Your task to perform on an android device: change keyboard looks Image 0: 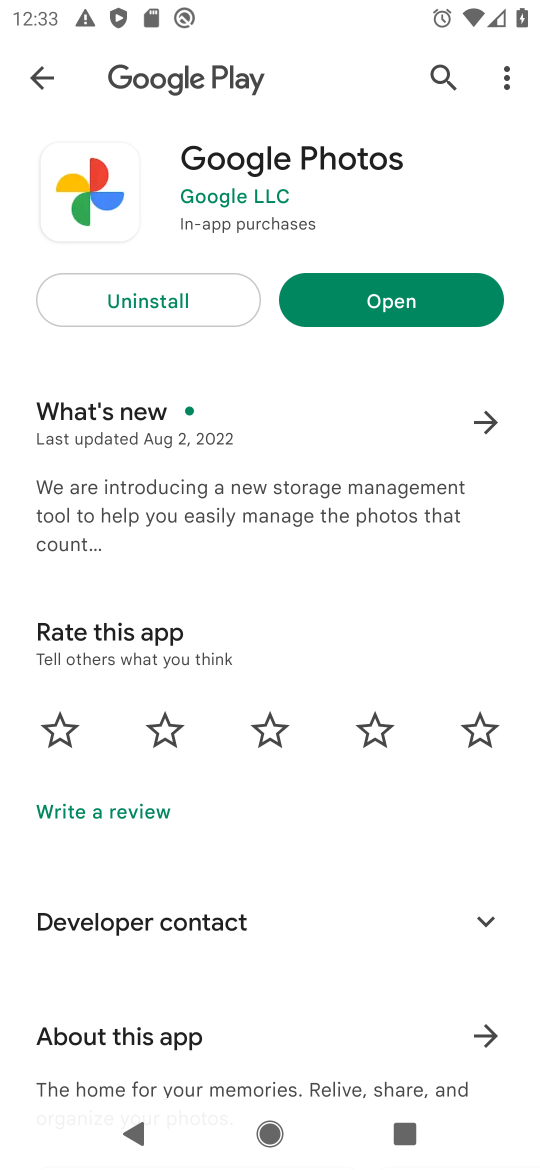
Step 0: press home button
Your task to perform on an android device: change keyboard looks Image 1: 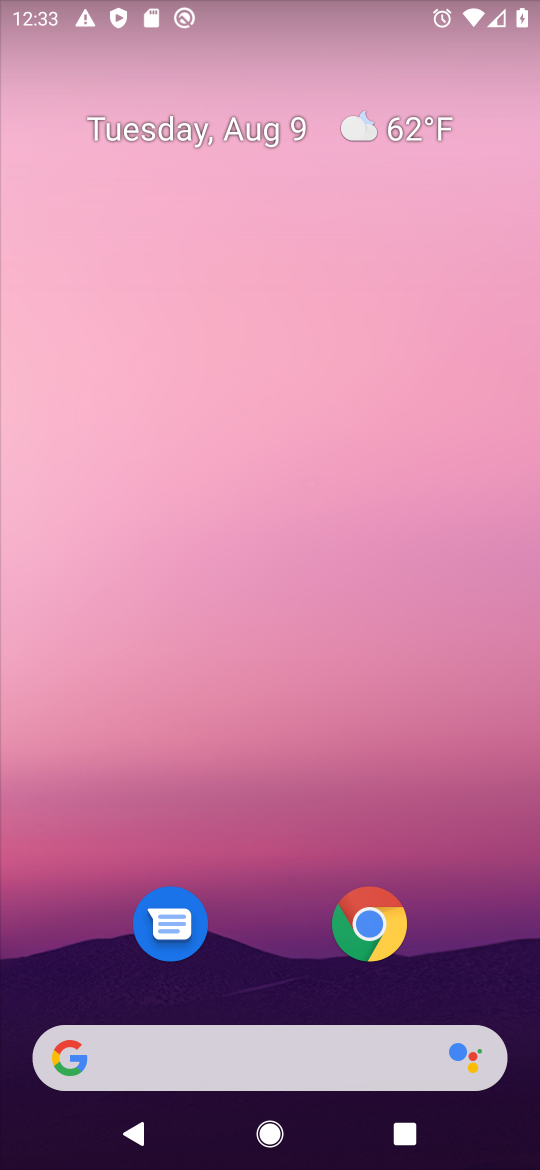
Step 1: drag from (303, 1003) to (245, 1)
Your task to perform on an android device: change keyboard looks Image 2: 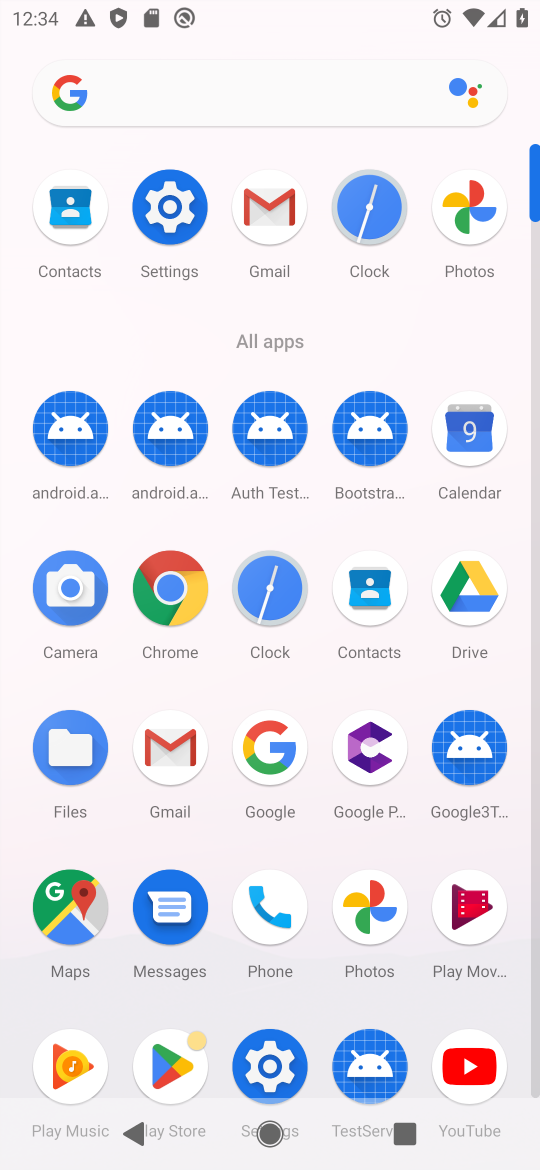
Step 2: click (163, 201)
Your task to perform on an android device: change keyboard looks Image 3: 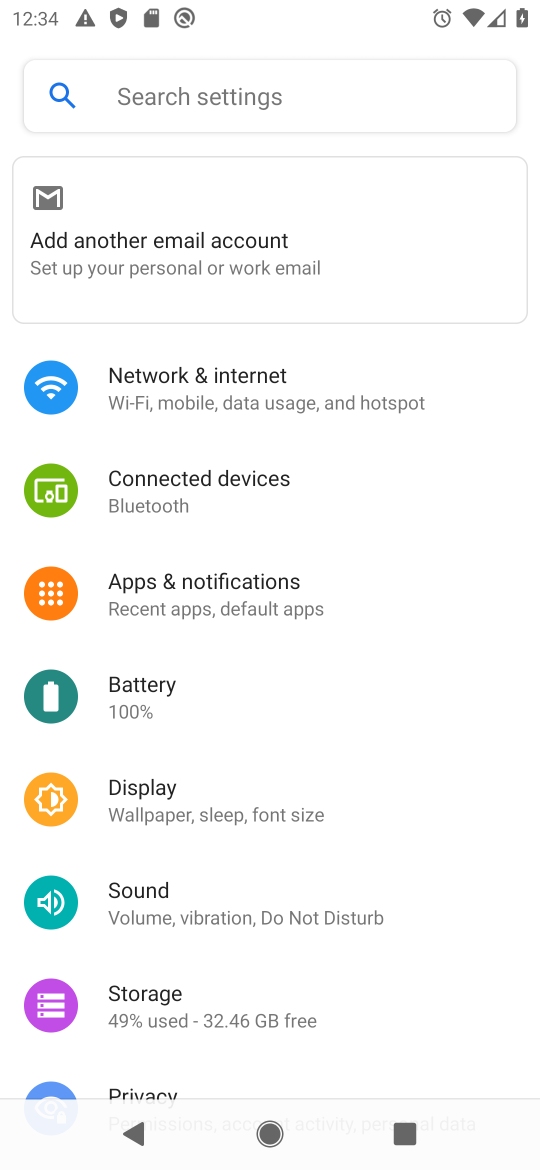
Step 3: drag from (362, 1032) to (207, 108)
Your task to perform on an android device: change keyboard looks Image 4: 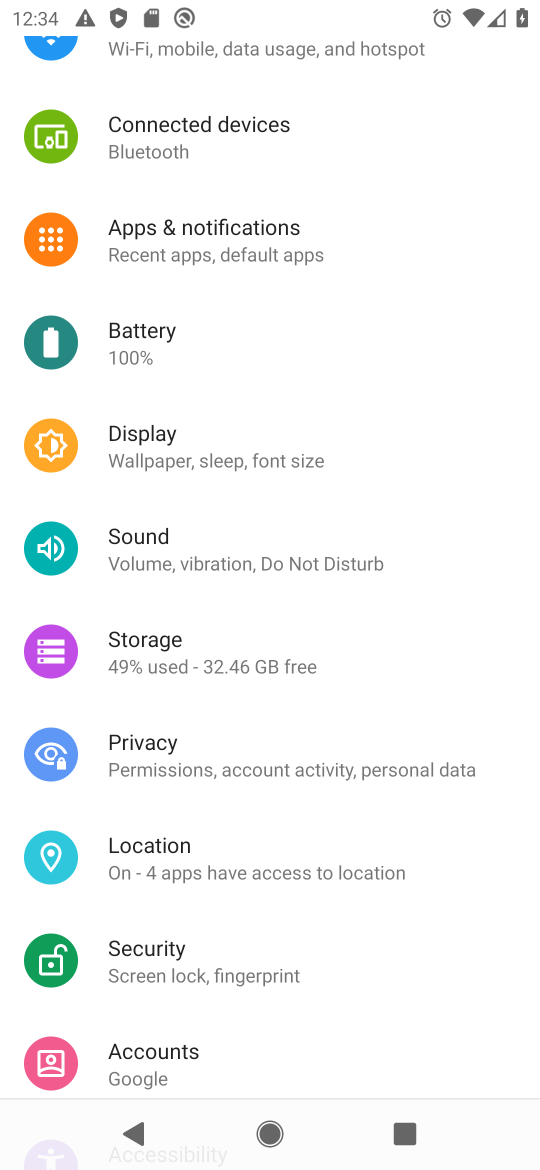
Step 4: drag from (294, 1042) to (189, 550)
Your task to perform on an android device: change keyboard looks Image 5: 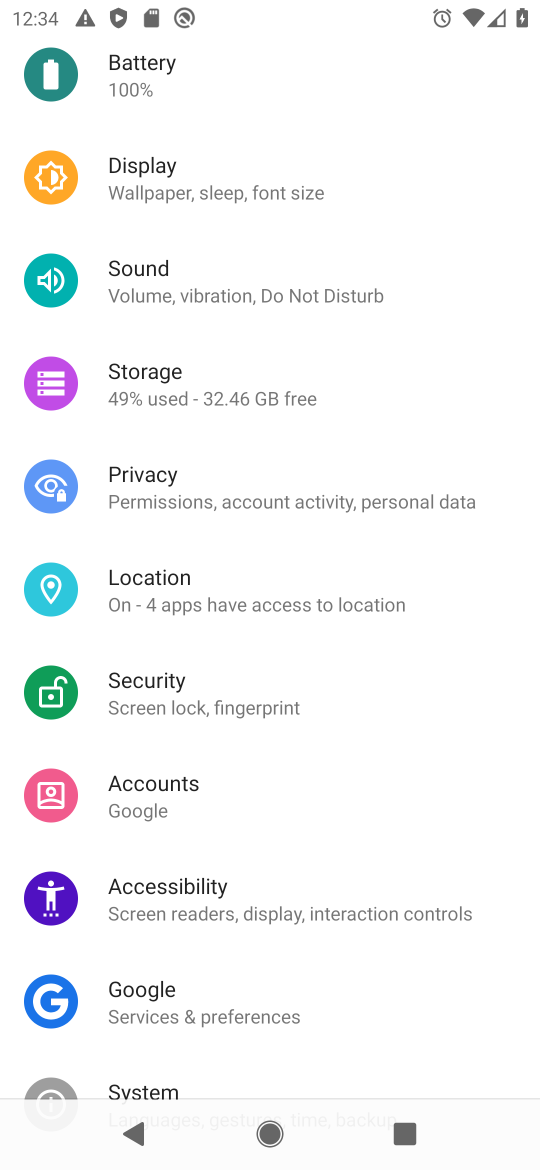
Step 5: drag from (313, 953) to (221, 574)
Your task to perform on an android device: change keyboard looks Image 6: 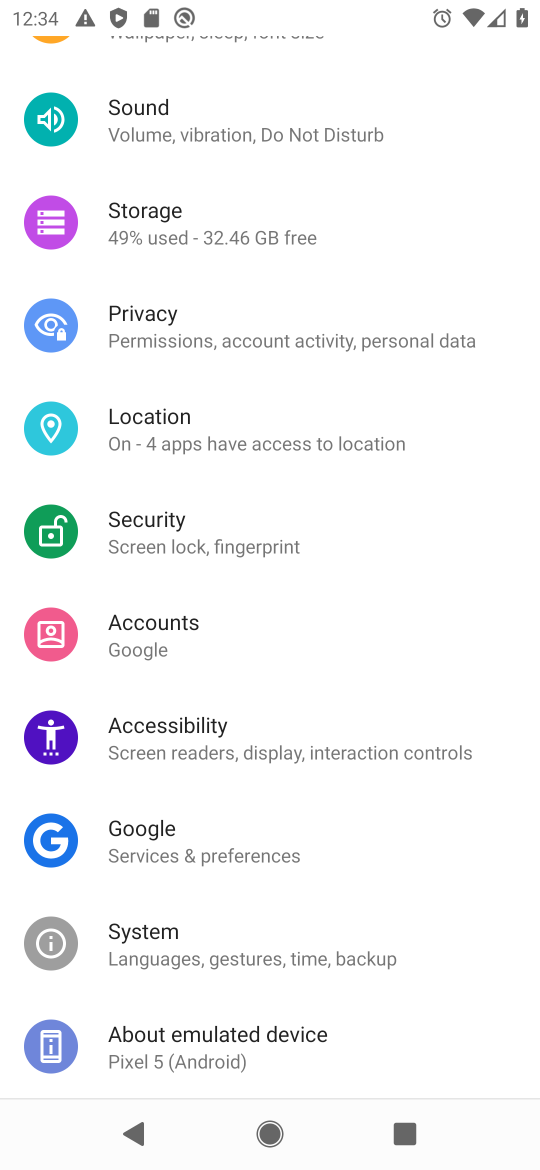
Step 6: click (212, 965)
Your task to perform on an android device: change keyboard looks Image 7: 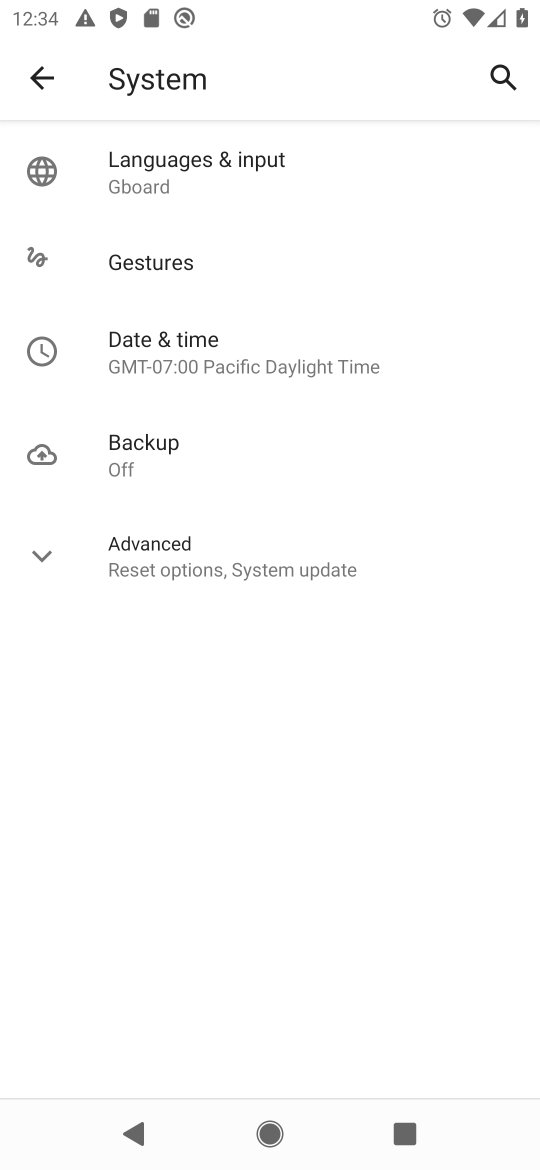
Step 7: click (196, 142)
Your task to perform on an android device: change keyboard looks Image 8: 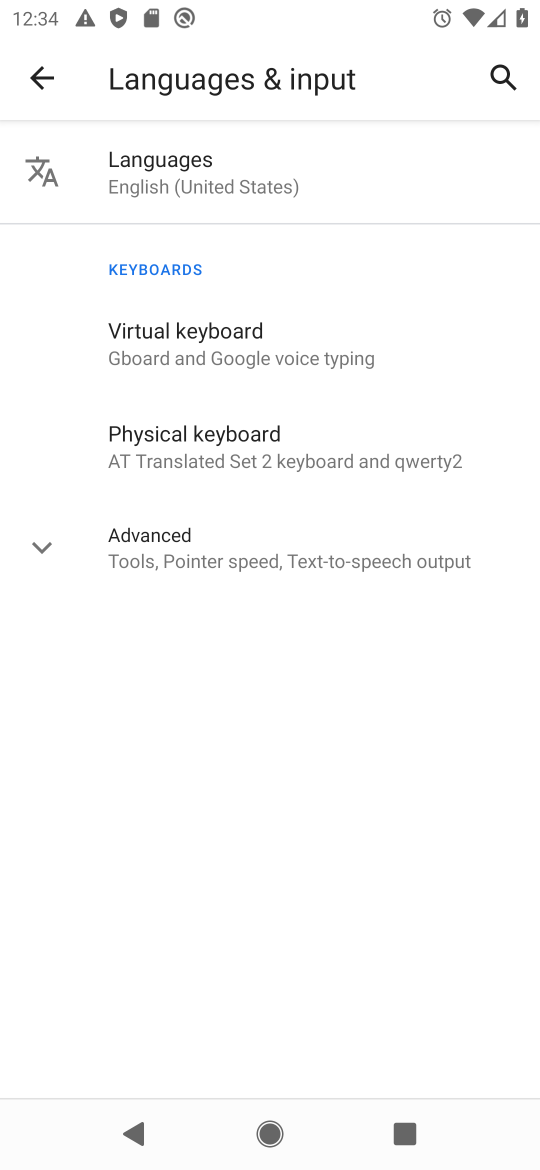
Step 8: task complete